Your task to perform on an android device: toggle data saver in the chrome app Image 0: 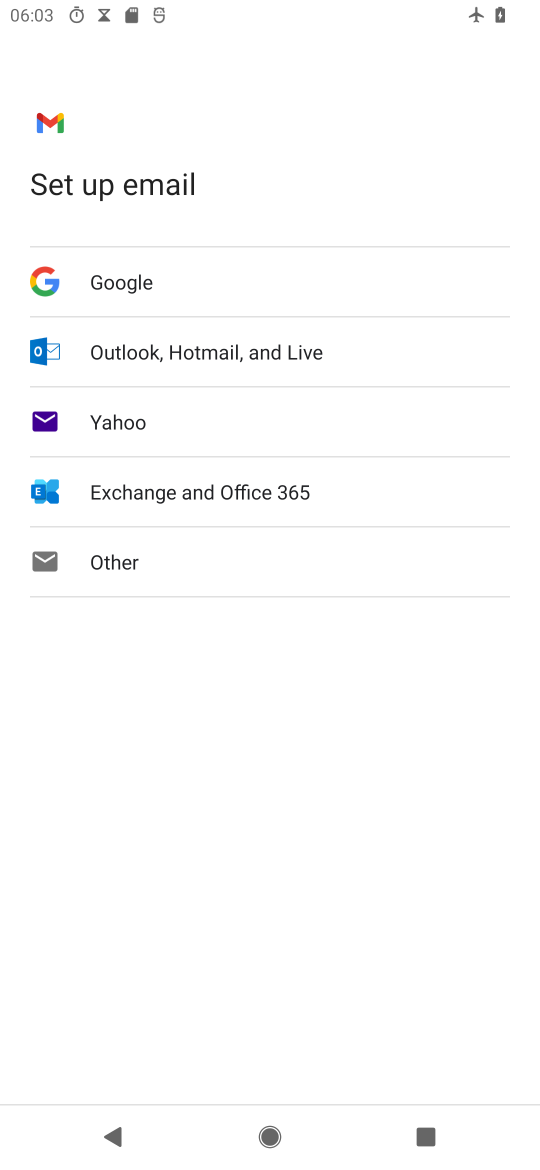
Step 0: press home button
Your task to perform on an android device: toggle data saver in the chrome app Image 1: 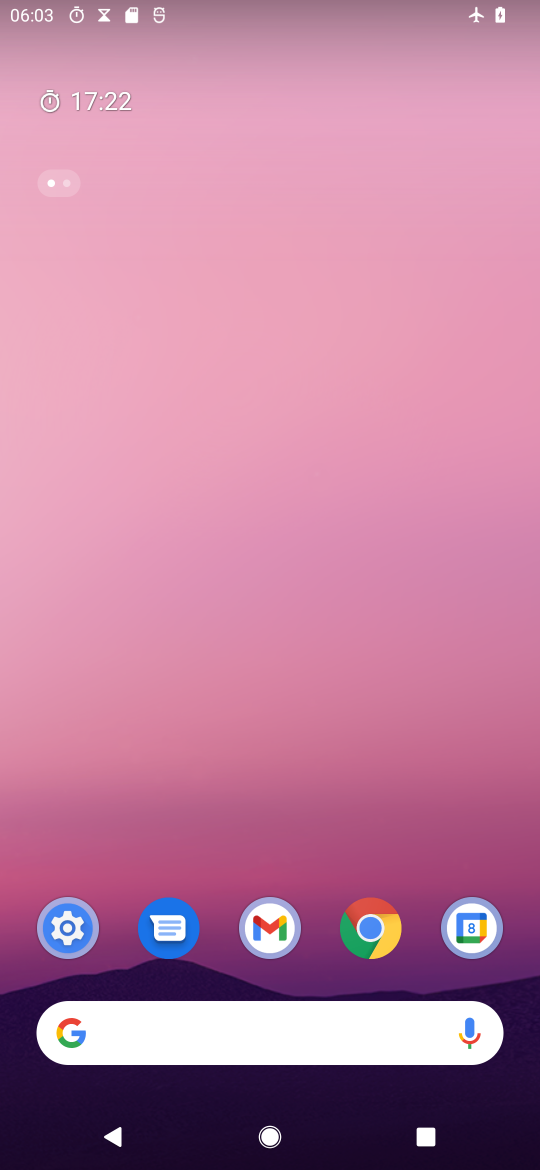
Step 1: click (365, 927)
Your task to perform on an android device: toggle data saver in the chrome app Image 2: 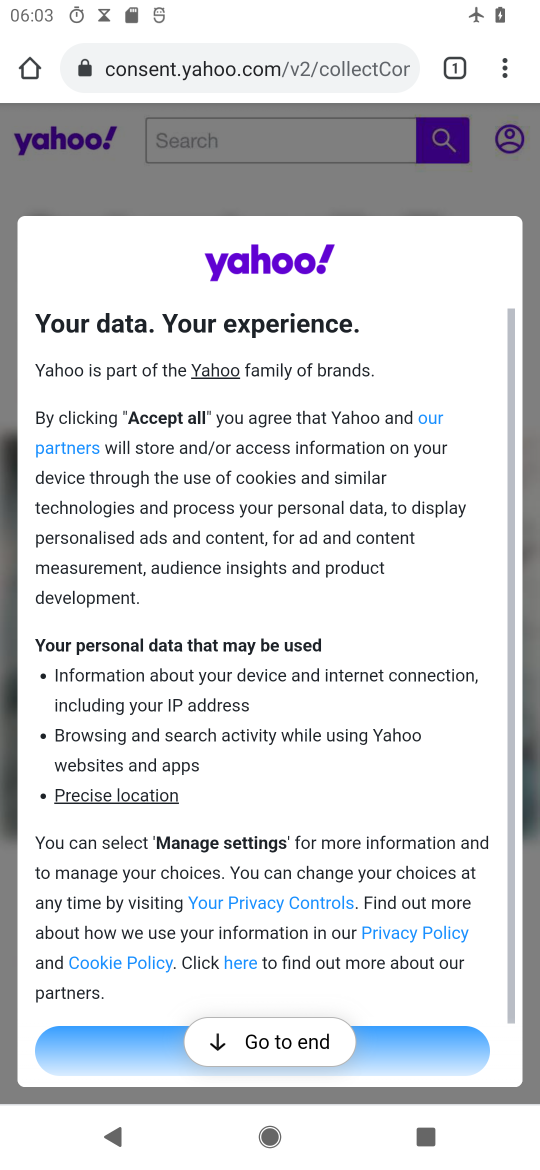
Step 2: click (496, 77)
Your task to perform on an android device: toggle data saver in the chrome app Image 3: 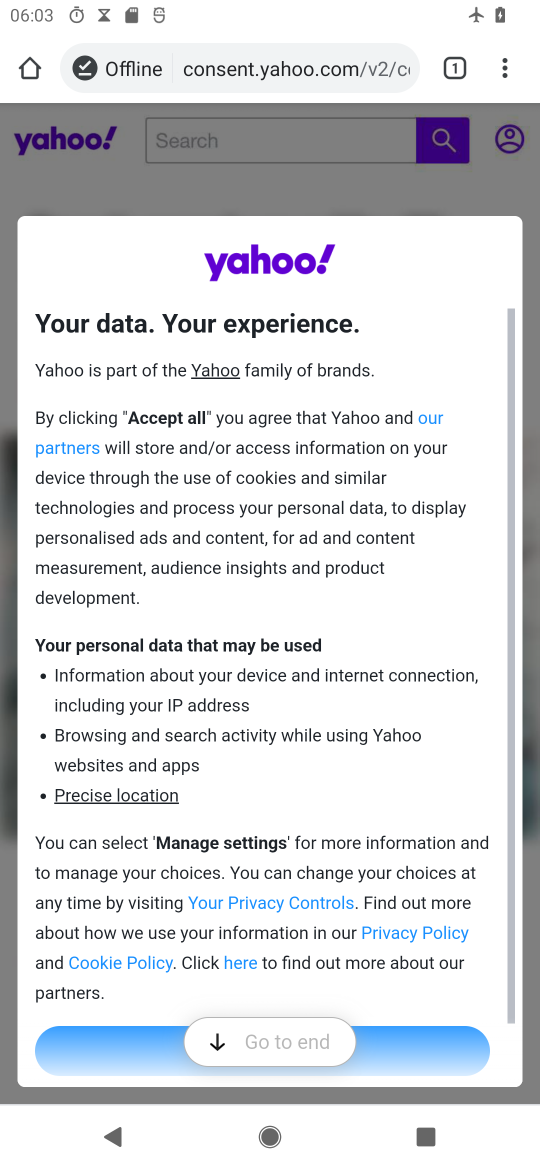
Step 3: click (505, 66)
Your task to perform on an android device: toggle data saver in the chrome app Image 4: 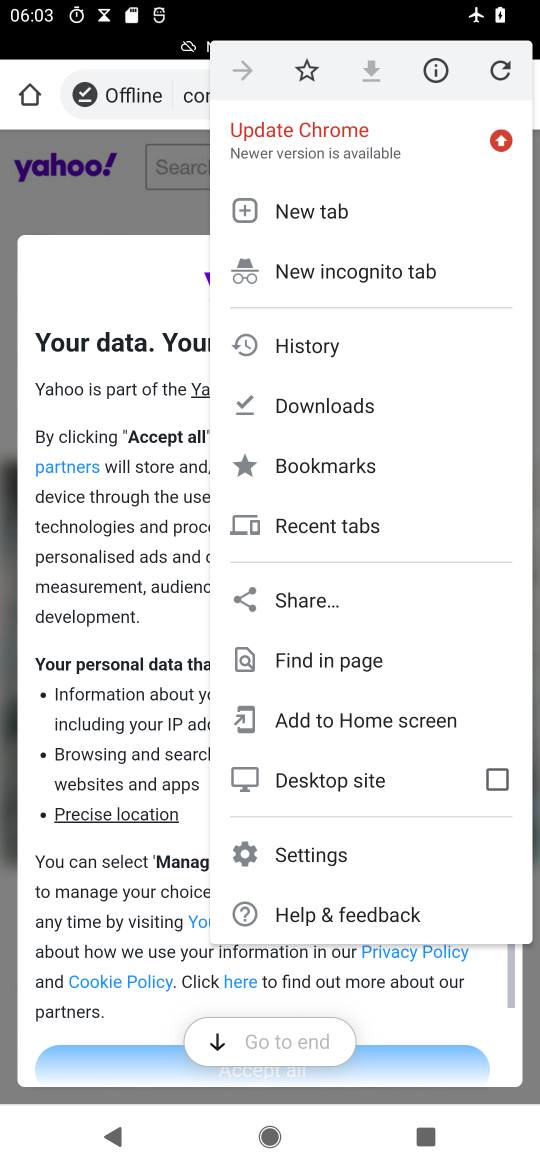
Step 4: click (295, 854)
Your task to perform on an android device: toggle data saver in the chrome app Image 5: 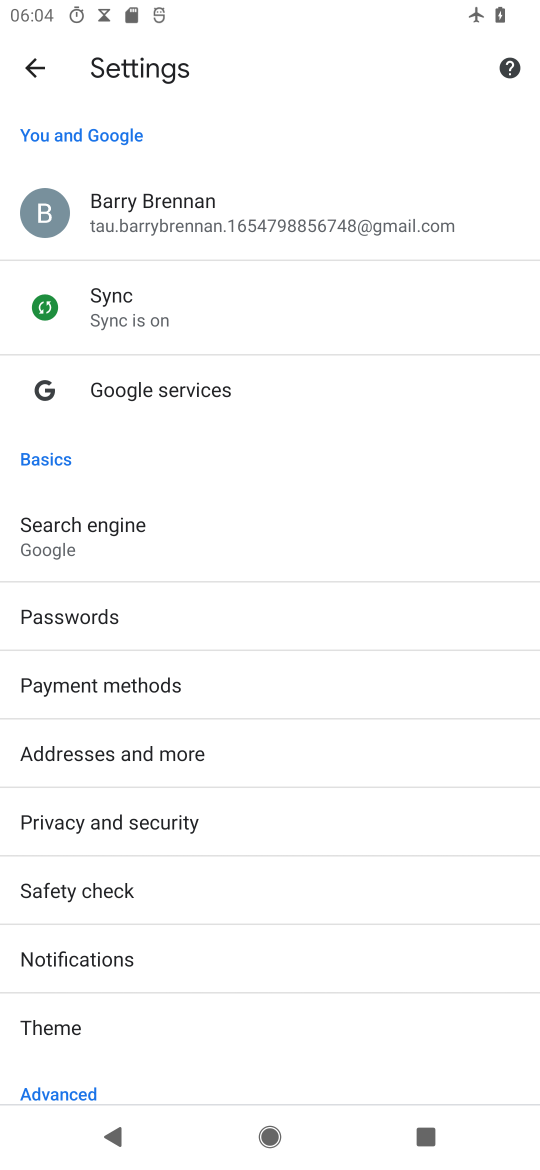
Step 5: drag from (125, 953) to (149, 329)
Your task to perform on an android device: toggle data saver in the chrome app Image 6: 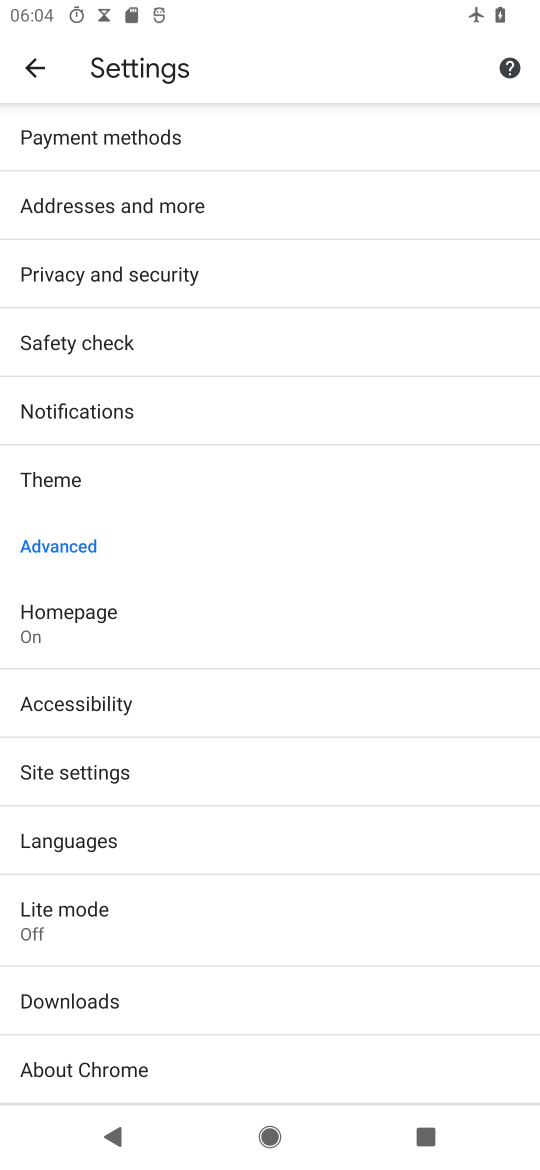
Step 6: click (93, 926)
Your task to perform on an android device: toggle data saver in the chrome app Image 7: 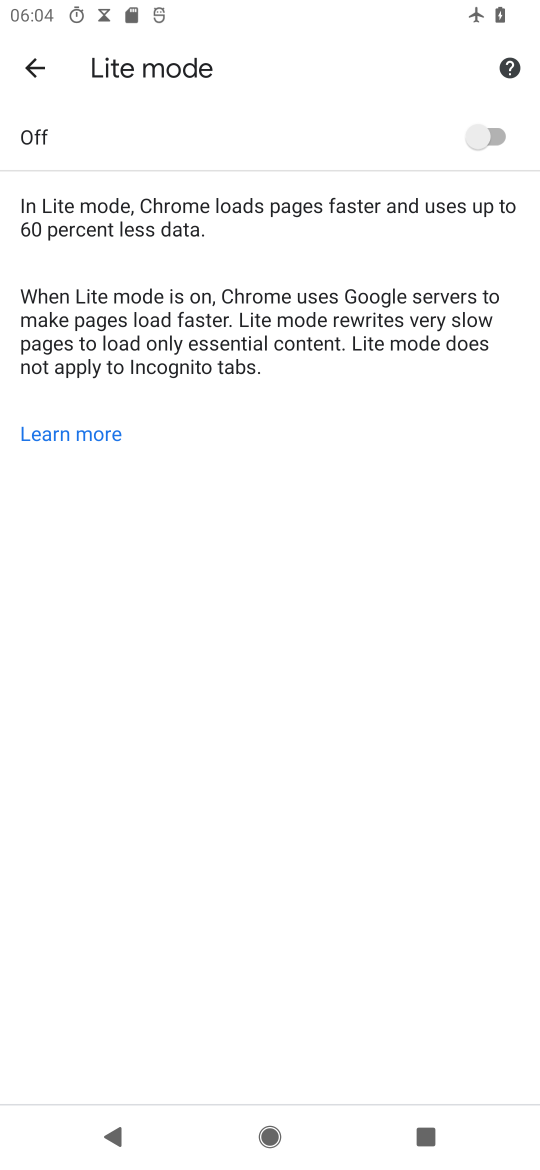
Step 7: click (518, 152)
Your task to perform on an android device: toggle data saver in the chrome app Image 8: 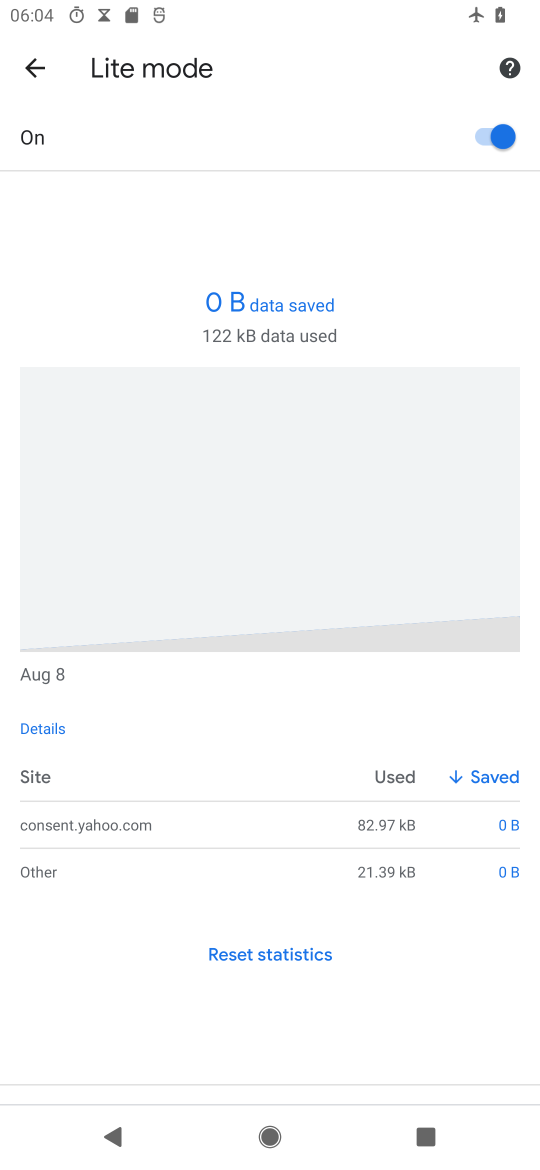
Step 8: task complete